Your task to perform on an android device: Search for Italian restaurants on Maps Image 0: 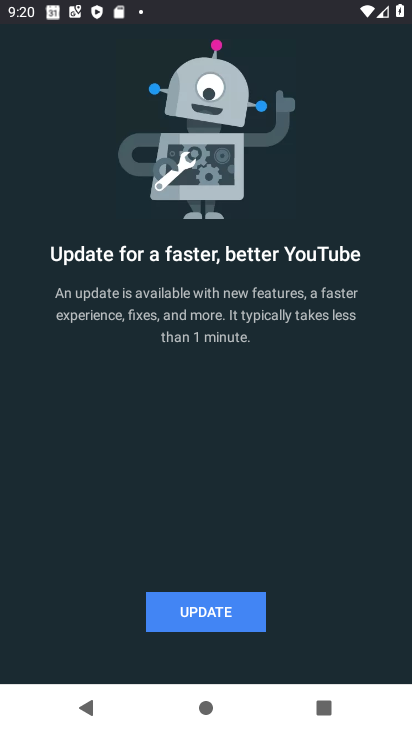
Step 0: press home button
Your task to perform on an android device: Search for Italian restaurants on Maps Image 1: 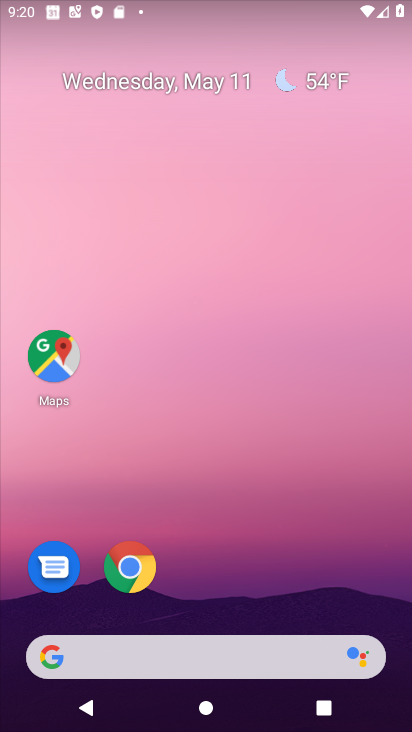
Step 1: click (193, 371)
Your task to perform on an android device: Search for Italian restaurants on Maps Image 2: 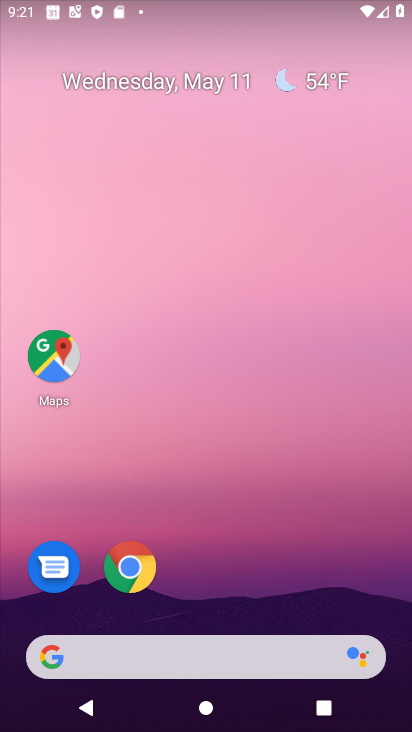
Step 2: click (59, 374)
Your task to perform on an android device: Search for Italian restaurants on Maps Image 3: 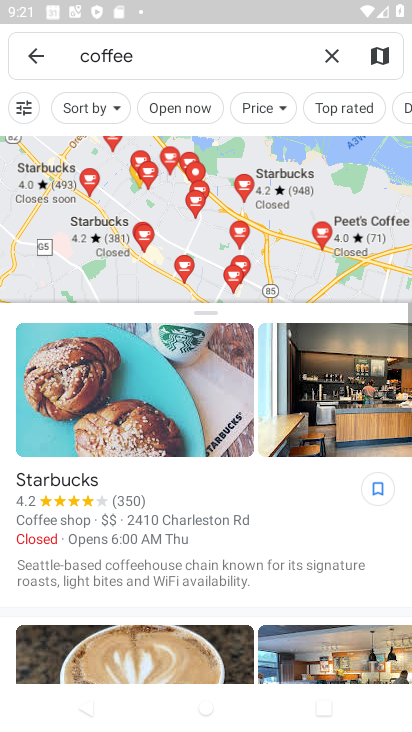
Step 3: click (321, 56)
Your task to perform on an android device: Search for Italian restaurants on Maps Image 4: 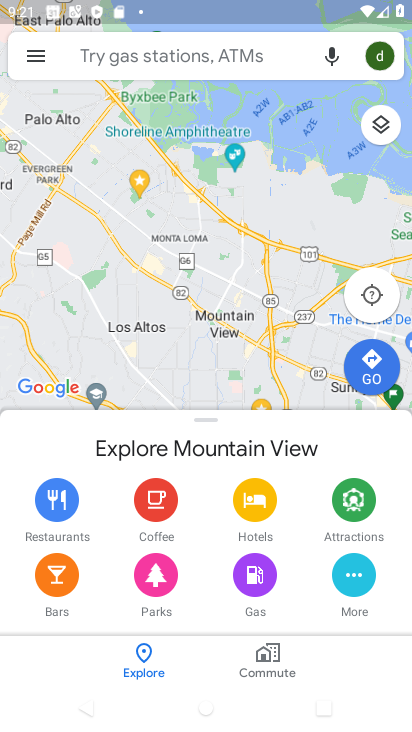
Step 4: click (240, 64)
Your task to perform on an android device: Search for Italian restaurants on Maps Image 5: 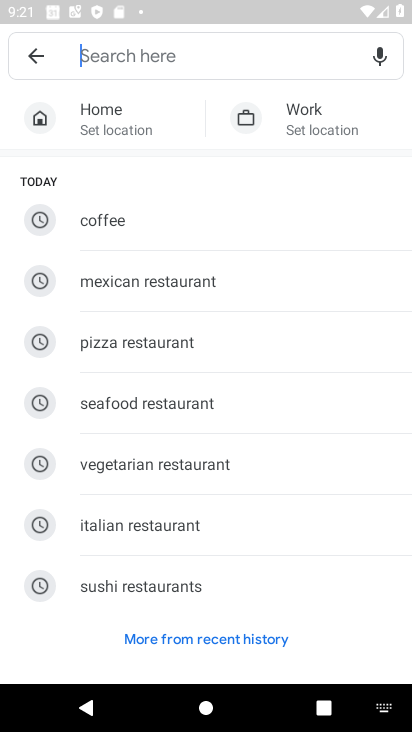
Step 5: type "italian restaurants"
Your task to perform on an android device: Search for Italian restaurants on Maps Image 6: 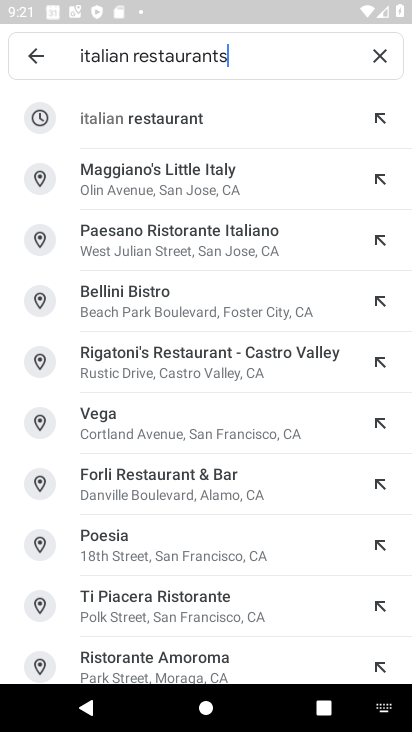
Step 6: click (162, 144)
Your task to perform on an android device: Search for Italian restaurants on Maps Image 7: 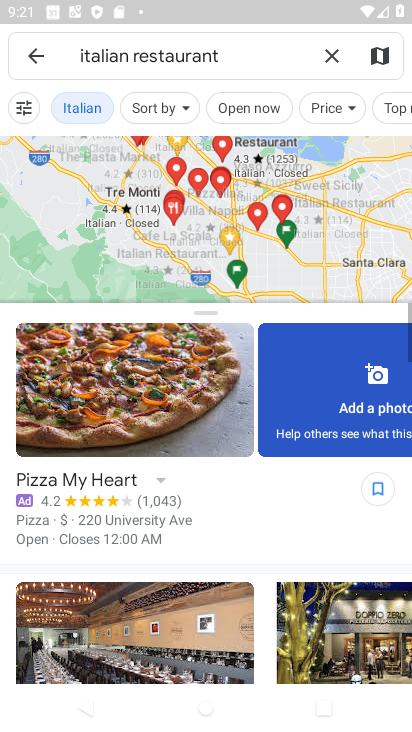
Step 7: task complete